Your task to perform on an android device: turn on the 12-hour format for clock Image 0: 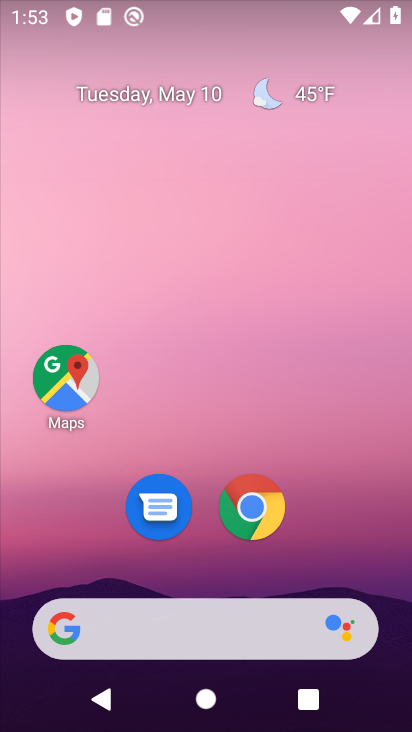
Step 0: drag from (307, 478) to (250, 185)
Your task to perform on an android device: turn on the 12-hour format for clock Image 1: 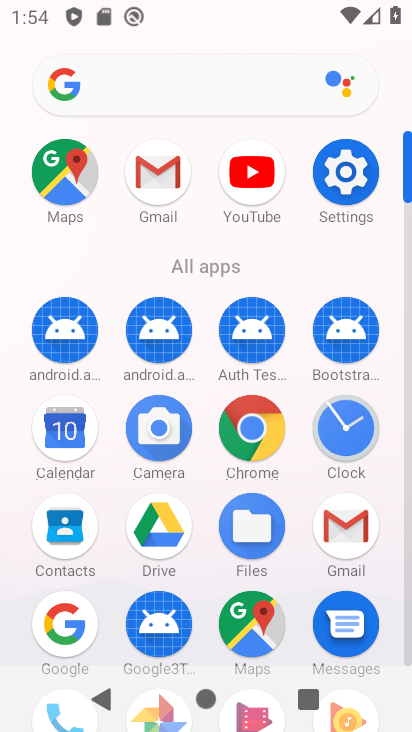
Step 1: click (345, 437)
Your task to perform on an android device: turn on the 12-hour format for clock Image 2: 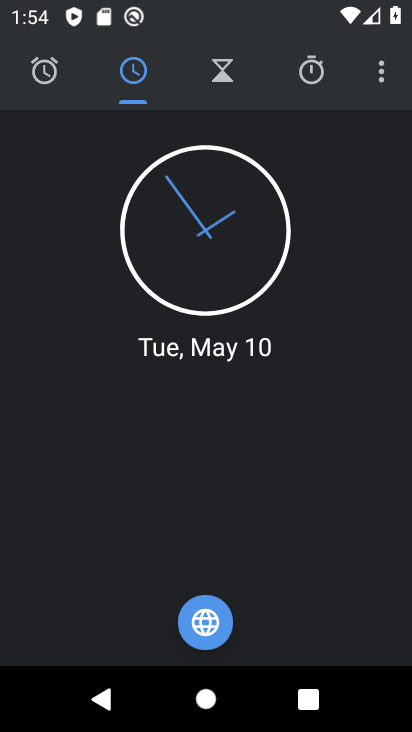
Step 2: click (380, 65)
Your task to perform on an android device: turn on the 12-hour format for clock Image 3: 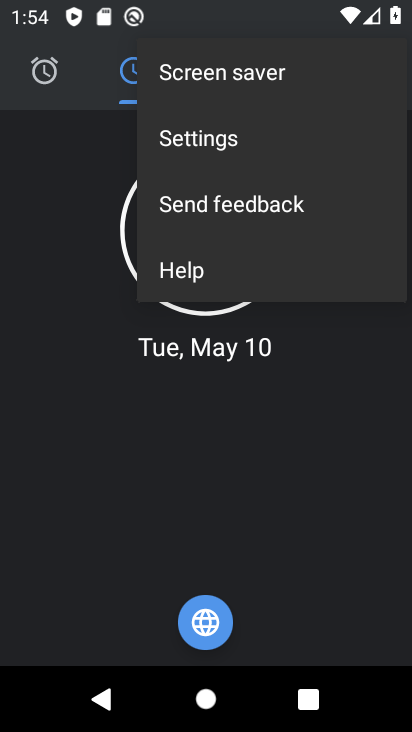
Step 3: click (219, 138)
Your task to perform on an android device: turn on the 12-hour format for clock Image 4: 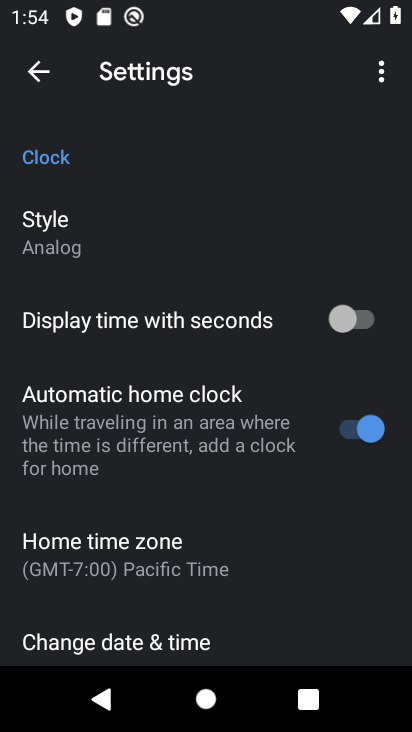
Step 4: click (167, 638)
Your task to perform on an android device: turn on the 12-hour format for clock Image 5: 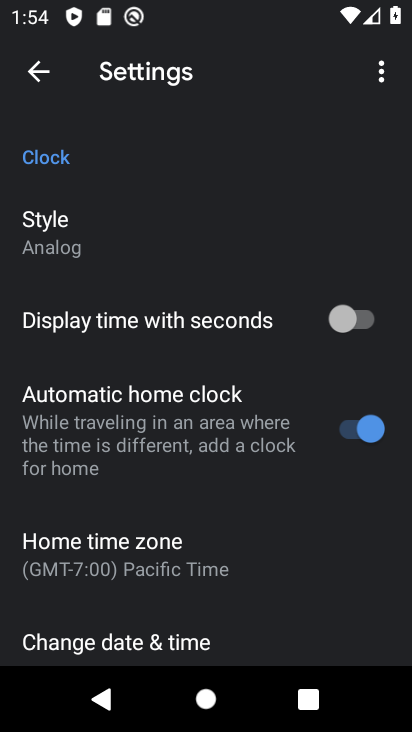
Step 5: task complete